Your task to perform on an android device: Go to location settings Image 0: 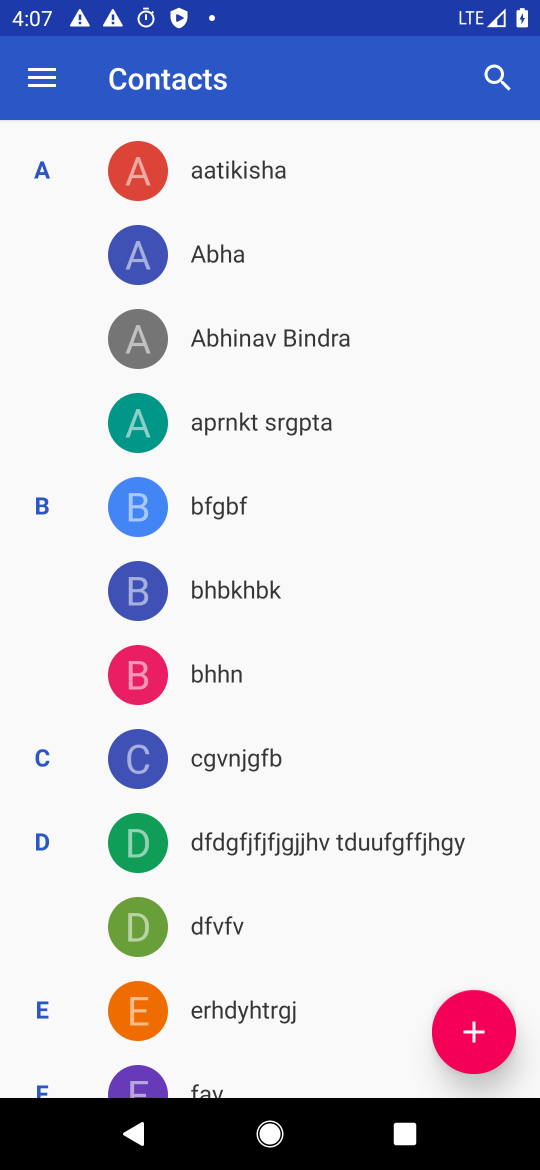
Step 0: press home button
Your task to perform on an android device: Go to location settings Image 1: 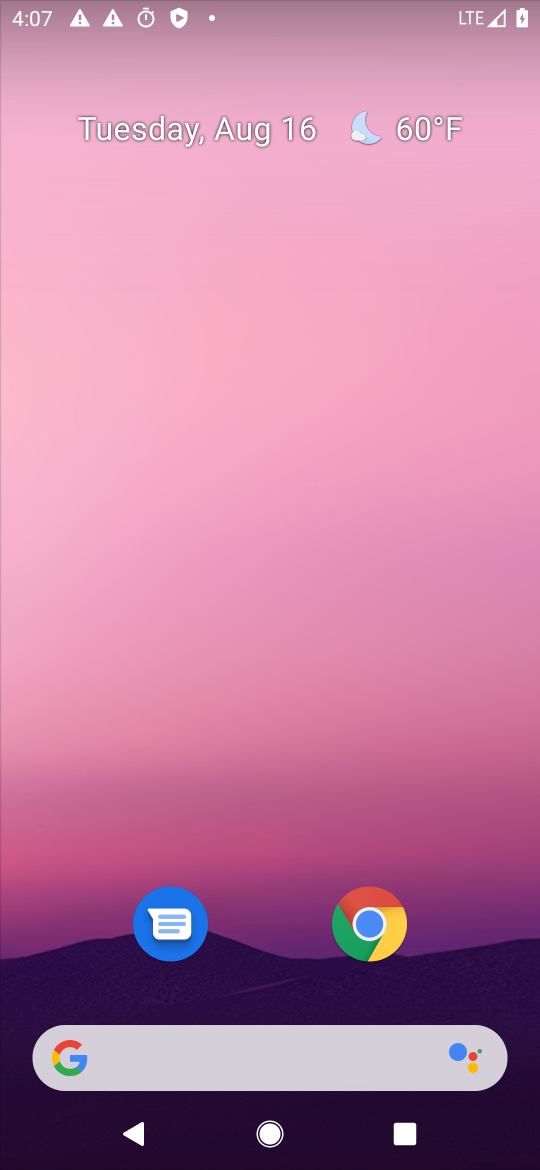
Step 1: drag from (273, 972) to (536, 255)
Your task to perform on an android device: Go to location settings Image 2: 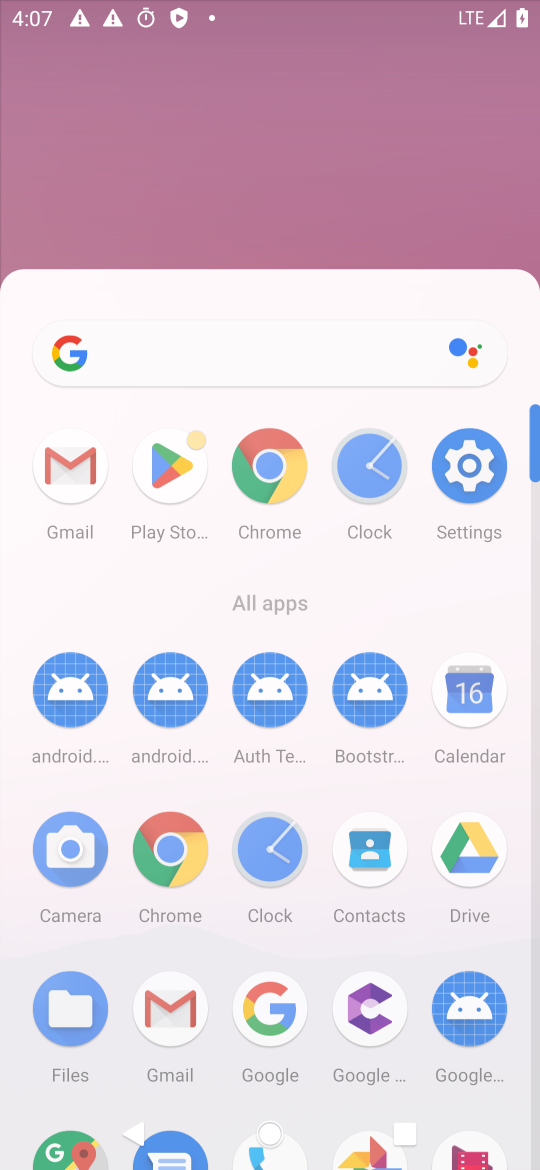
Step 2: click (464, 223)
Your task to perform on an android device: Go to location settings Image 3: 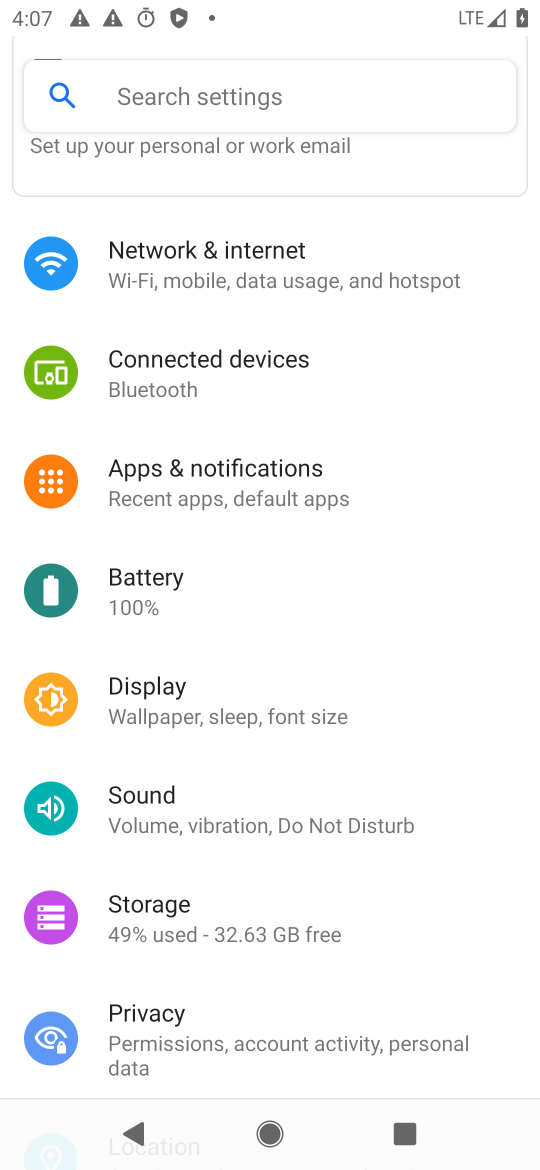
Step 3: drag from (142, 991) to (127, 344)
Your task to perform on an android device: Go to location settings Image 4: 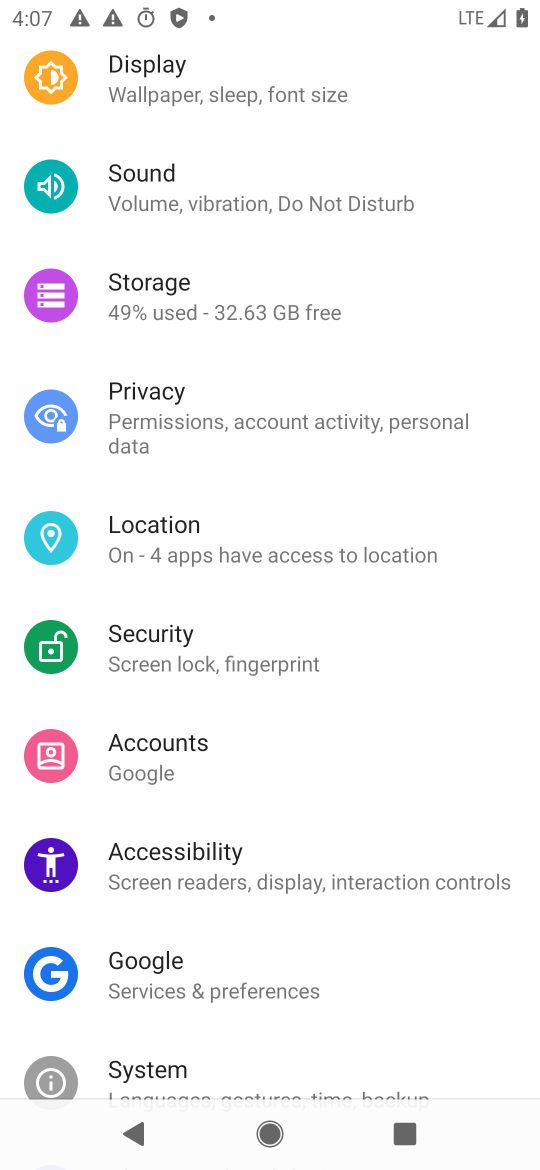
Step 4: click (229, 533)
Your task to perform on an android device: Go to location settings Image 5: 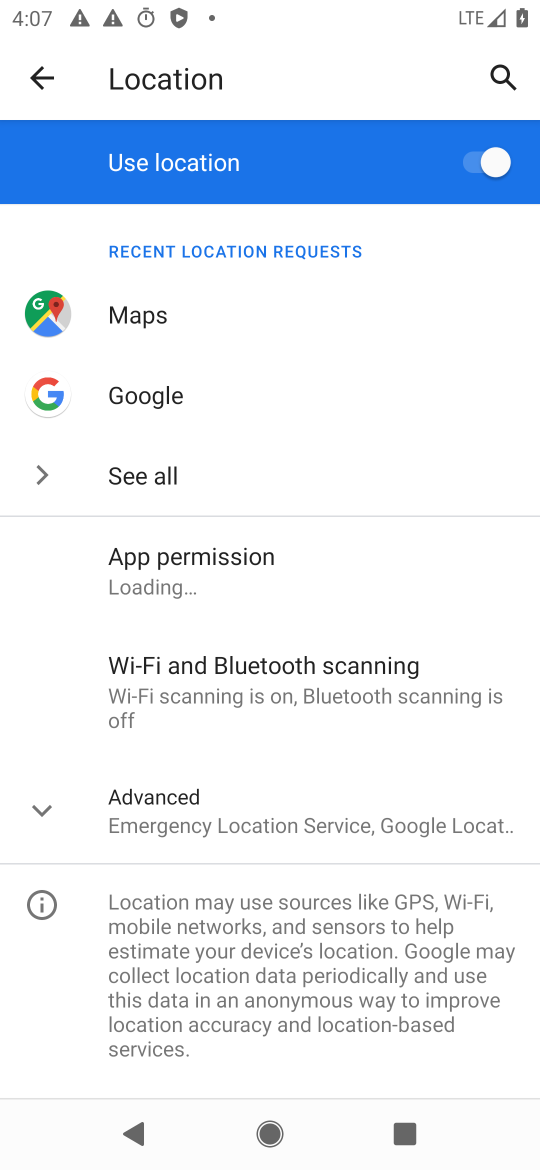
Step 5: task complete